Your task to perform on an android device: toggle notification dots Image 0: 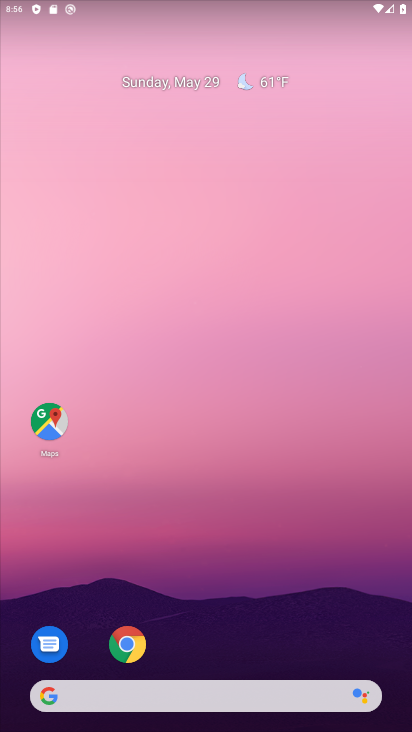
Step 0: drag from (204, 571) to (181, 59)
Your task to perform on an android device: toggle notification dots Image 1: 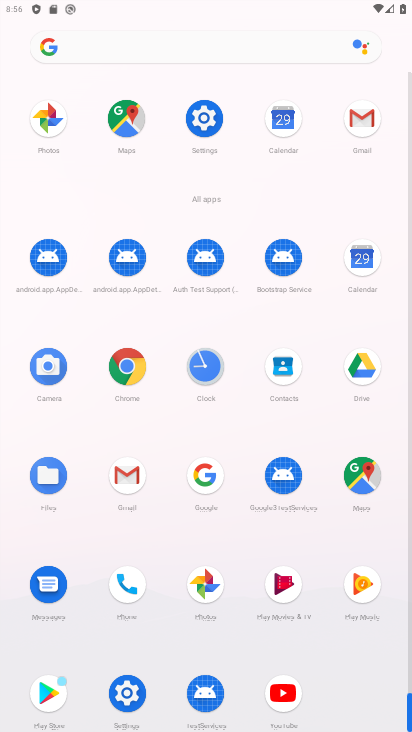
Step 1: drag from (13, 497) to (10, 235)
Your task to perform on an android device: toggle notification dots Image 2: 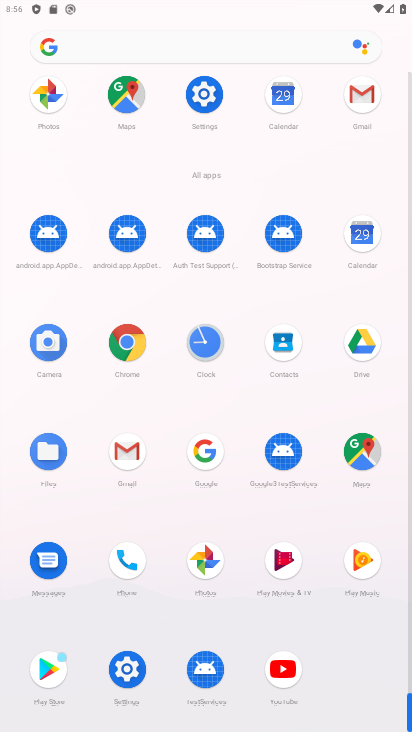
Step 2: click (123, 668)
Your task to perform on an android device: toggle notification dots Image 3: 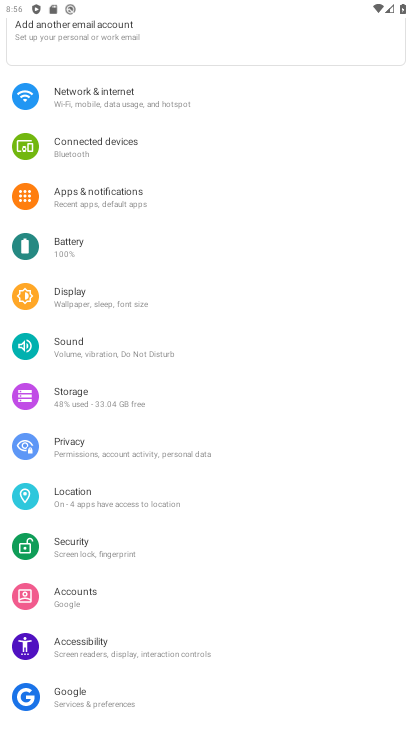
Step 3: drag from (199, 484) to (212, 116)
Your task to perform on an android device: toggle notification dots Image 4: 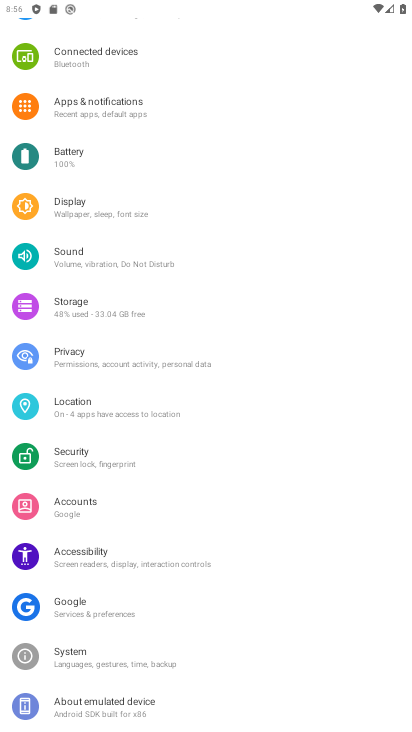
Step 4: drag from (181, 110) to (171, 506)
Your task to perform on an android device: toggle notification dots Image 5: 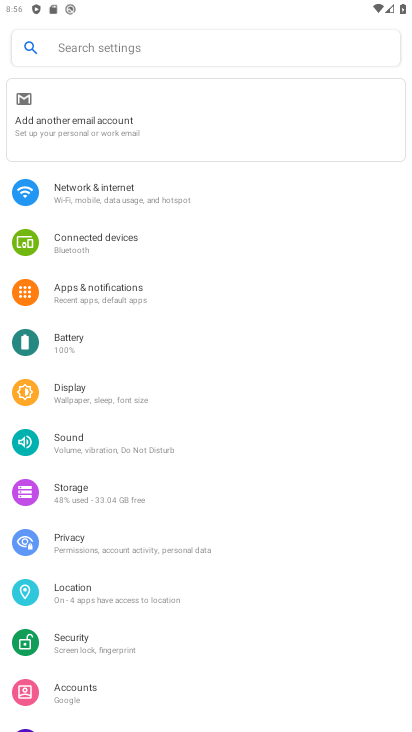
Step 5: click (157, 289)
Your task to perform on an android device: toggle notification dots Image 6: 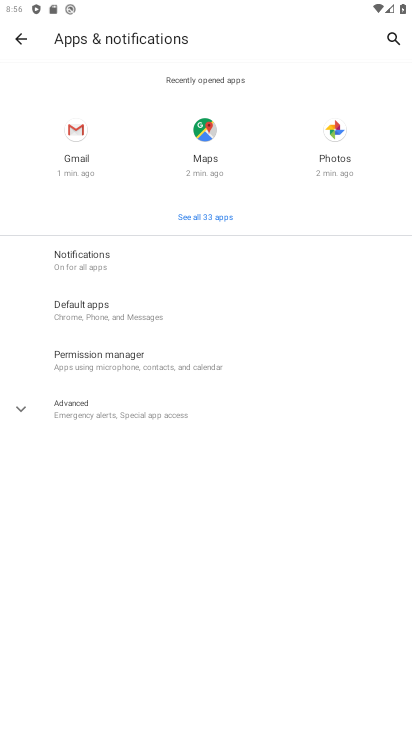
Step 6: click (28, 394)
Your task to perform on an android device: toggle notification dots Image 7: 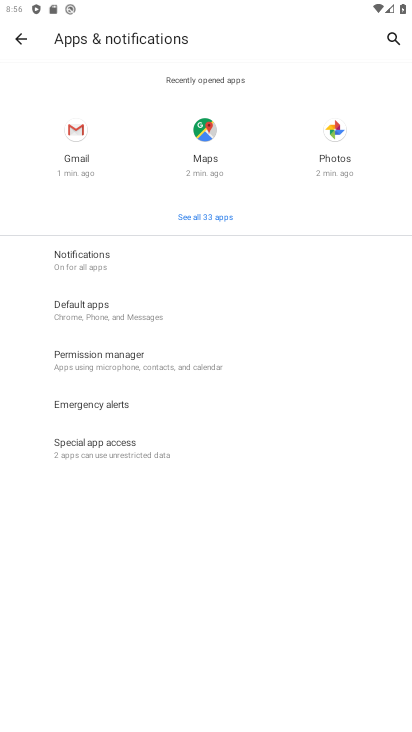
Step 7: click (100, 264)
Your task to perform on an android device: toggle notification dots Image 8: 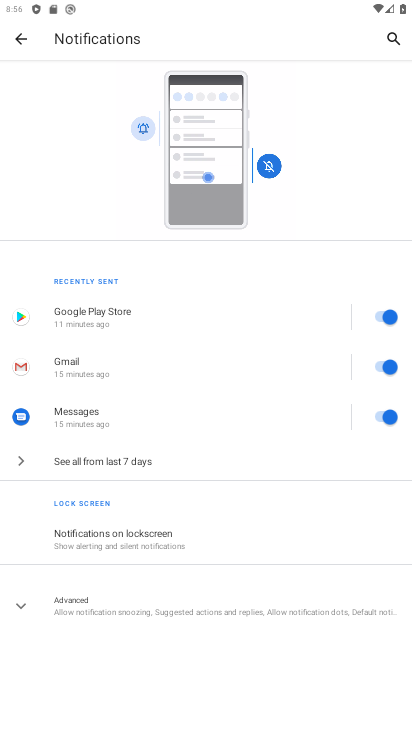
Step 8: click (67, 600)
Your task to perform on an android device: toggle notification dots Image 9: 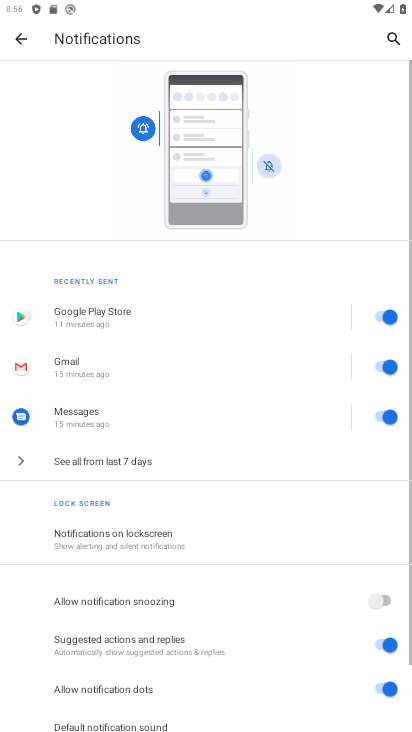
Step 9: drag from (210, 578) to (235, 235)
Your task to perform on an android device: toggle notification dots Image 10: 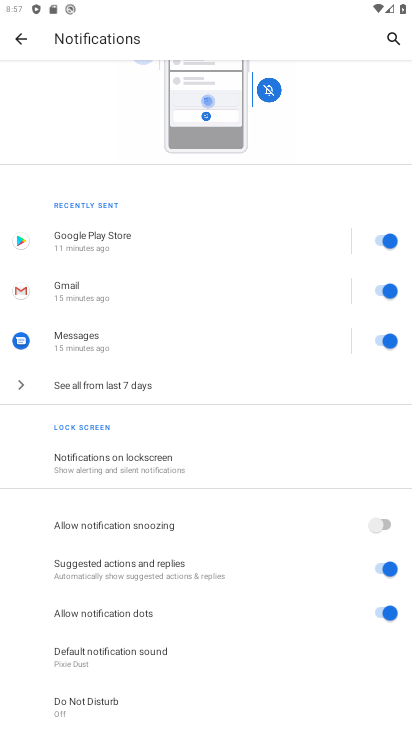
Step 10: click (388, 606)
Your task to perform on an android device: toggle notification dots Image 11: 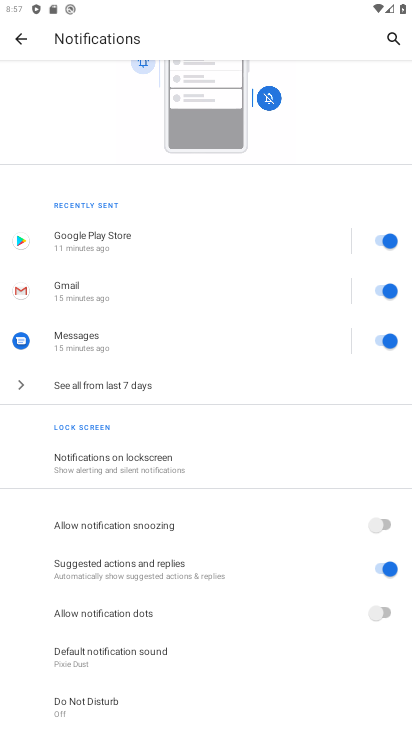
Step 11: task complete